Your task to perform on an android device: Go to Android settings Image 0: 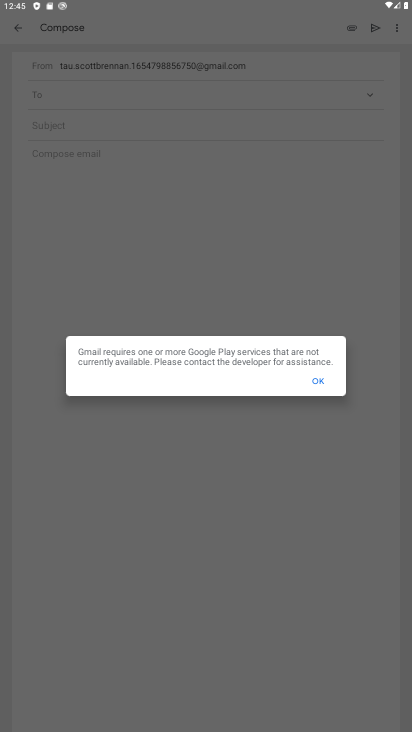
Step 0: press home button
Your task to perform on an android device: Go to Android settings Image 1: 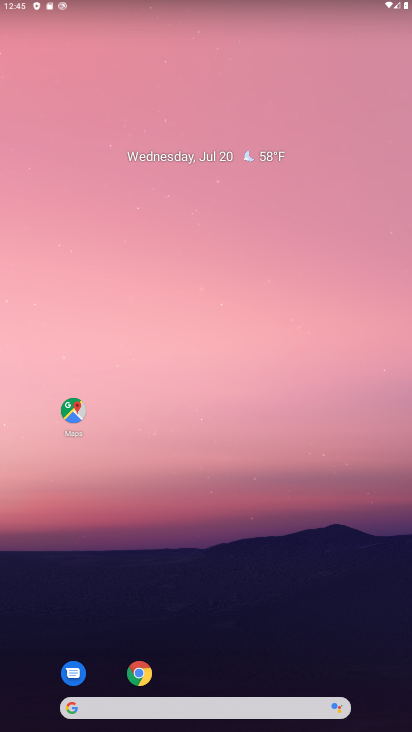
Step 1: drag from (241, 623) to (234, 29)
Your task to perform on an android device: Go to Android settings Image 2: 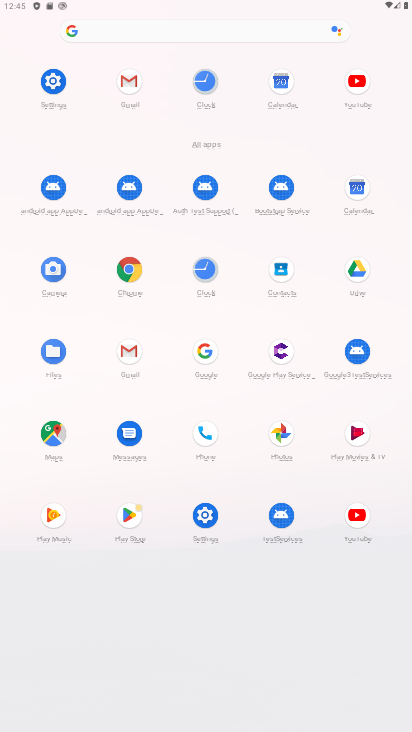
Step 2: click (198, 509)
Your task to perform on an android device: Go to Android settings Image 3: 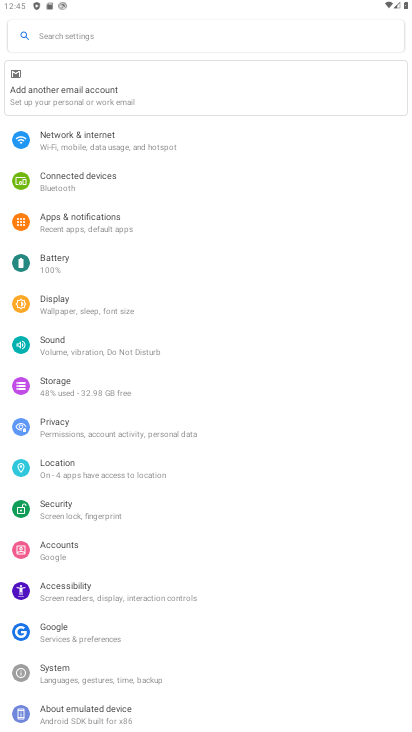
Step 3: task complete